Your task to perform on an android device: change the clock display to analog Image 0: 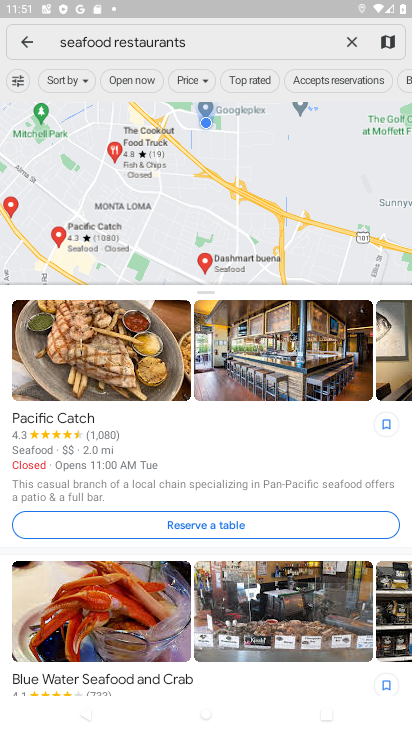
Step 0: press home button
Your task to perform on an android device: change the clock display to analog Image 1: 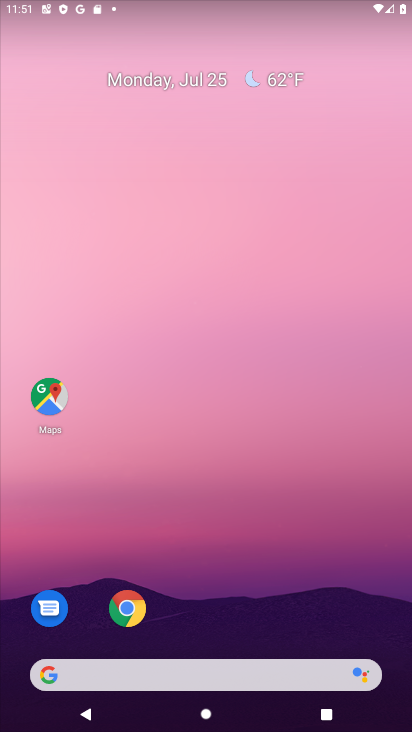
Step 1: drag from (236, 524) to (262, 131)
Your task to perform on an android device: change the clock display to analog Image 2: 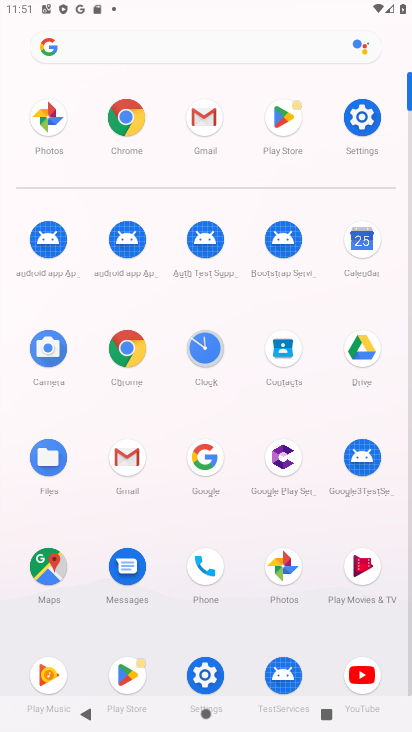
Step 2: click (355, 123)
Your task to perform on an android device: change the clock display to analog Image 3: 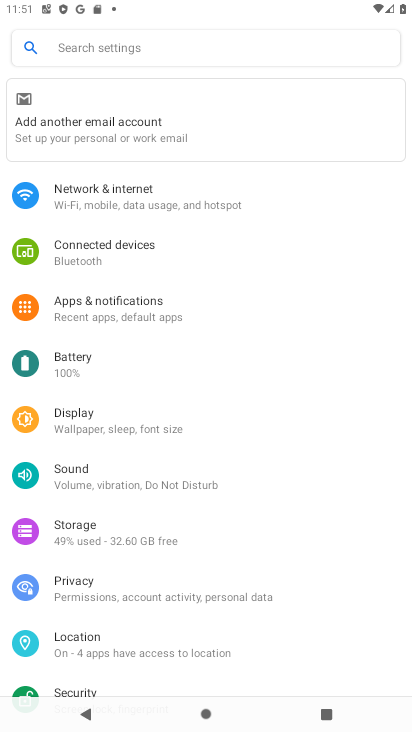
Step 3: press home button
Your task to perform on an android device: change the clock display to analog Image 4: 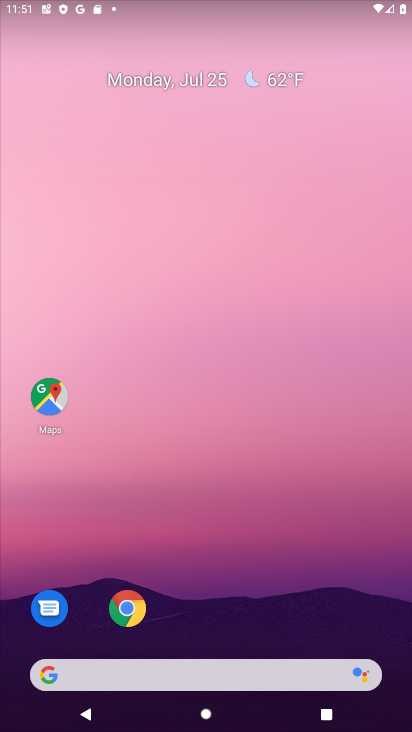
Step 4: drag from (269, 574) to (371, 34)
Your task to perform on an android device: change the clock display to analog Image 5: 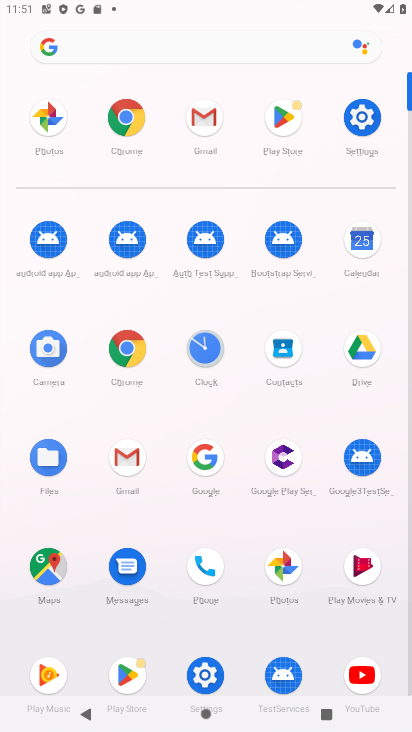
Step 5: click (199, 354)
Your task to perform on an android device: change the clock display to analog Image 6: 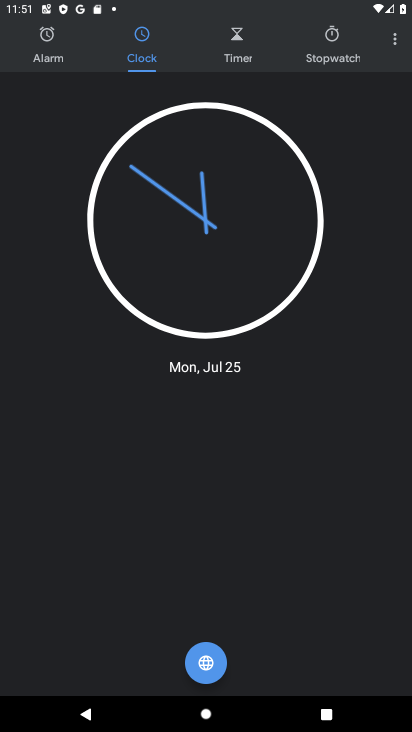
Step 6: task complete